Your task to perform on an android device: Search for seafood restaurants on Google Maps Image 0: 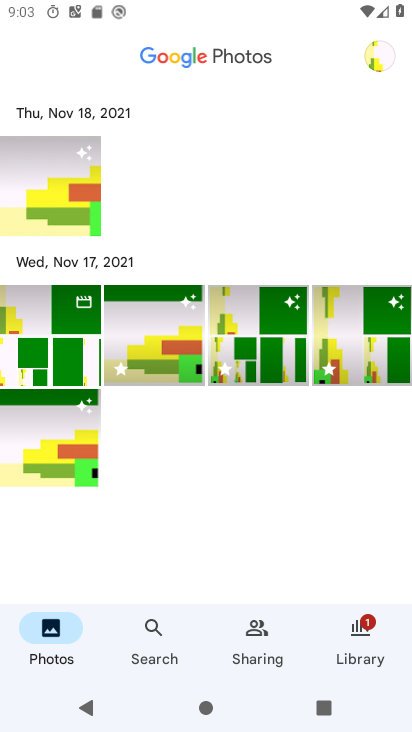
Step 0: press home button
Your task to perform on an android device: Search for seafood restaurants on Google Maps Image 1: 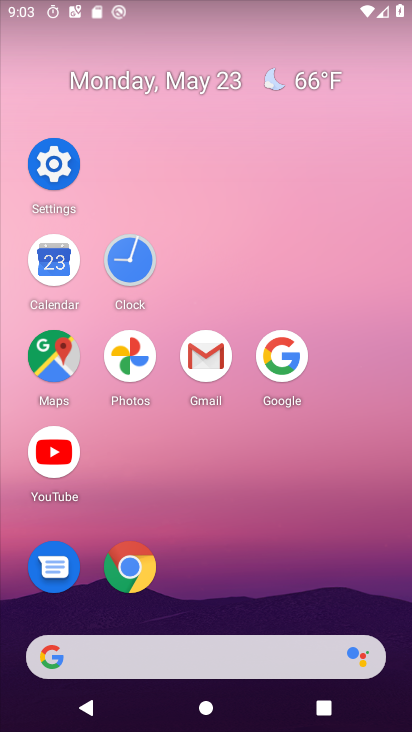
Step 1: click (69, 344)
Your task to perform on an android device: Search for seafood restaurants on Google Maps Image 2: 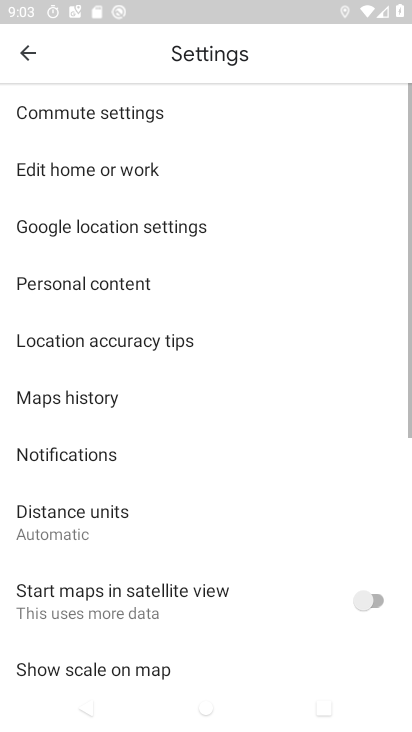
Step 2: click (33, 59)
Your task to perform on an android device: Search for seafood restaurants on Google Maps Image 3: 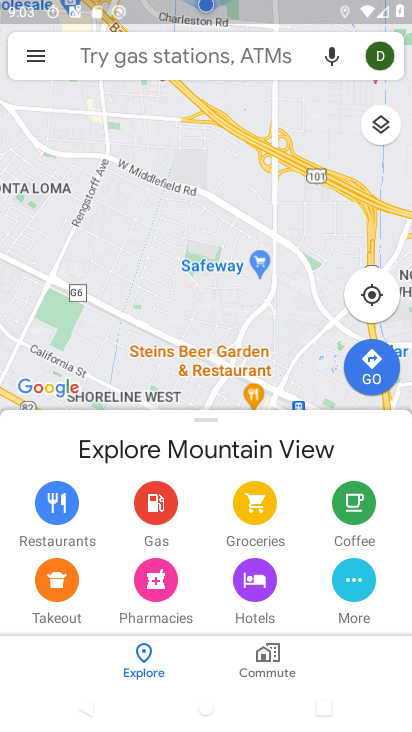
Step 3: click (173, 51)
Your task to perform on an android device: Search for seafood restaurants on Google Maps Image 4: 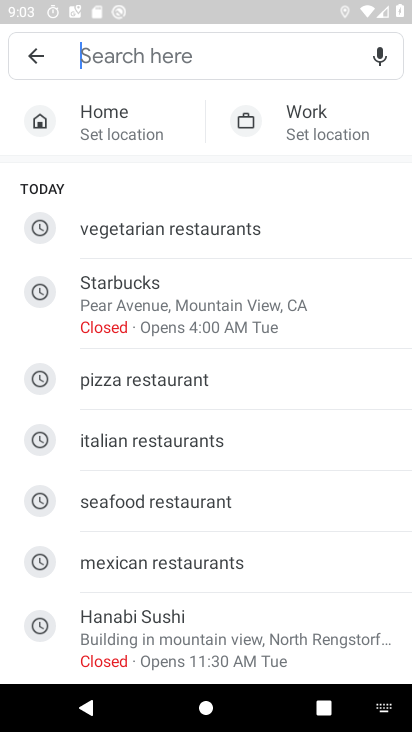
Step 4: click (200, 518)
Your task to perform on an android device: Search for seafood restaurants on Google Maps Image 5: 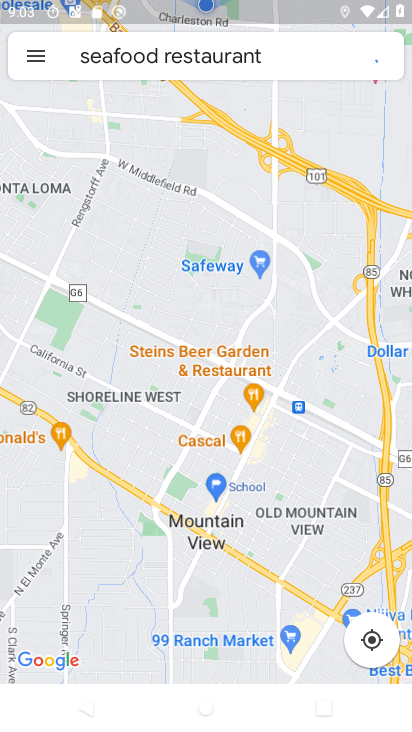
Step 5: task complete